Your task to perform on an android device: Open the phone app and click the voicemail tab. Image 0: 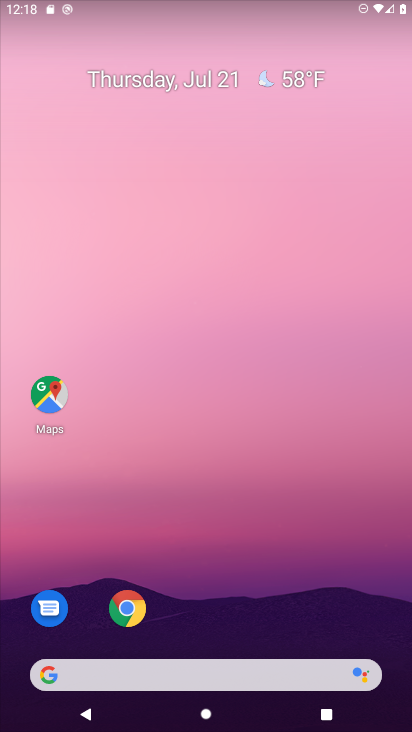
Step 0: press home button
Your task to perform on an android device: Open the phone app and click the voicemail tab. Image 1: 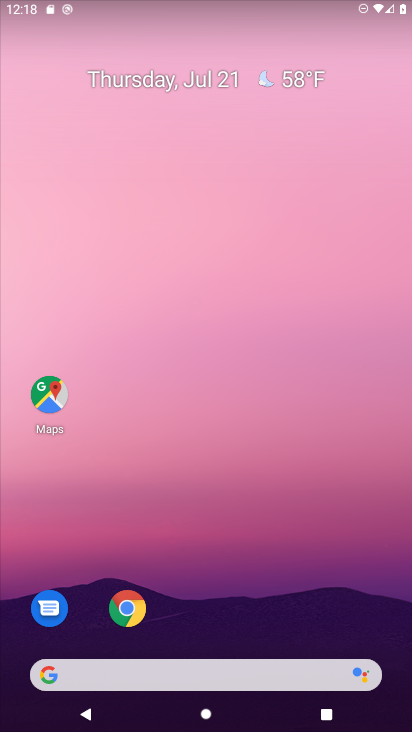
Step 1: drag from (303, 525) to (269, 127)
Your task to perform on an android device: Open the phone app and click the voicemail tab. Image 2: 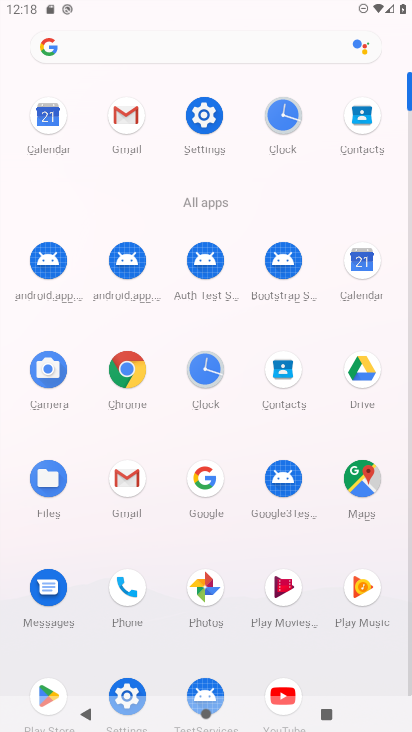
Step 2: click (121, 587)
Your task to perform on an android device: Open the phone app and click the voicemail tab. Image 3: 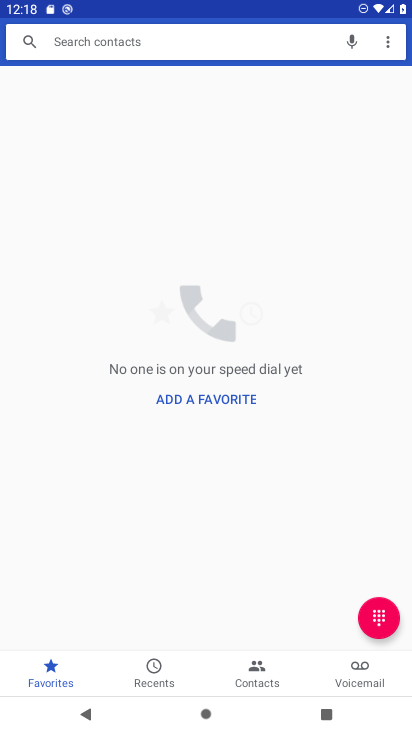
Step 3: click (355, 672)
Your task to perform on an android device: Open the phone app and click the voicemail tab. Image 4: 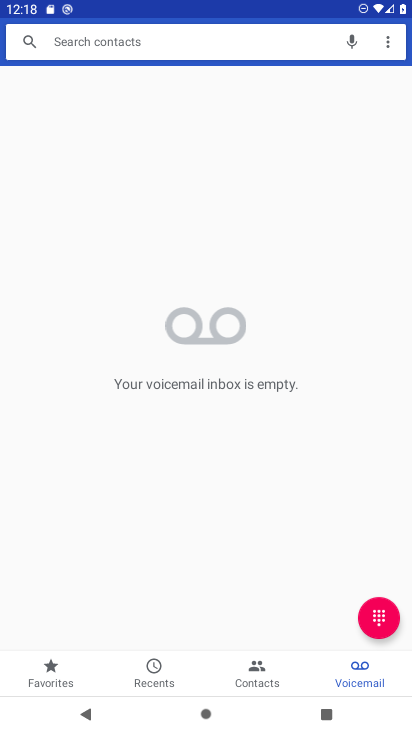
Step 4: task complete